Your task to perform on an android device: Is it going to rain tomorrow? Image 0: 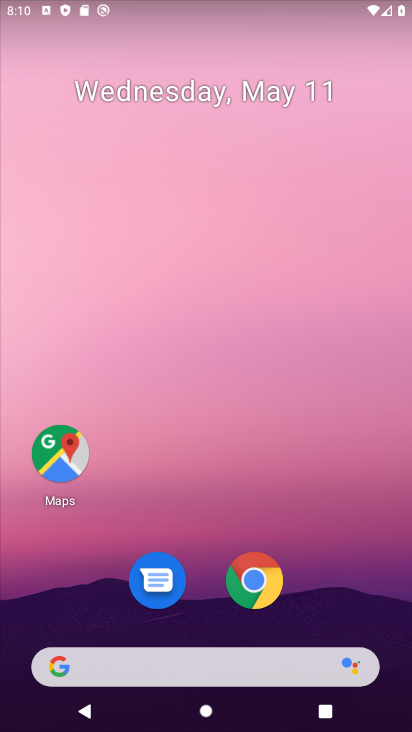
Step 0: click (108, 664)
Your task to perform on an android device: Is it going to rain tomorrow? Image 1: 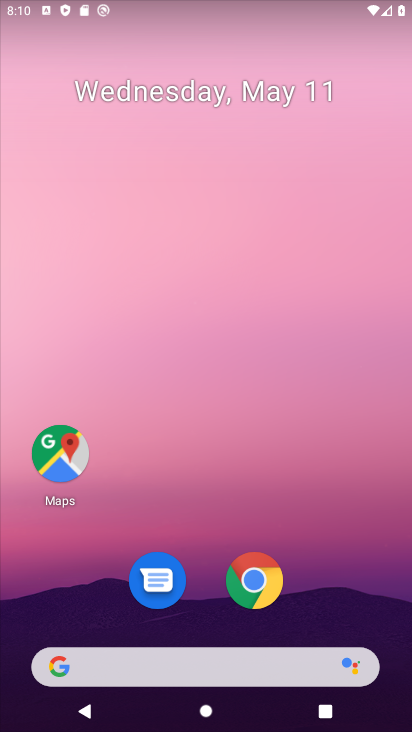
Step 1: type "Is it going to rain tomorrow?"
Your task to perform on an android device: Is it going to rain tomorrow? Image 2: 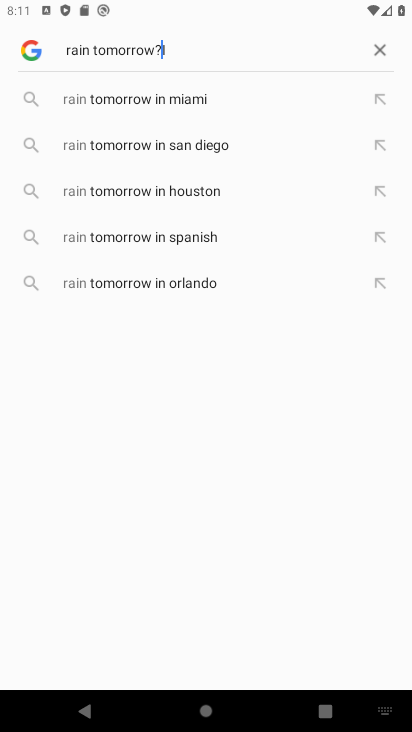
Step 2: drag from (193, 49) to (114, 46)
Your task to perform on an android device: Is it going to rain tomorrow? Image 3: 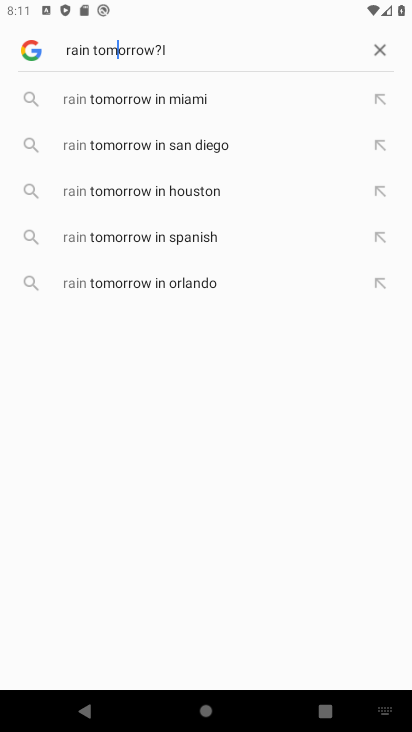
Step 3: type "Is it going to rain tomorrow?"
Your task to perform on an android device: Is it going to rain tomorrow? Image 4: 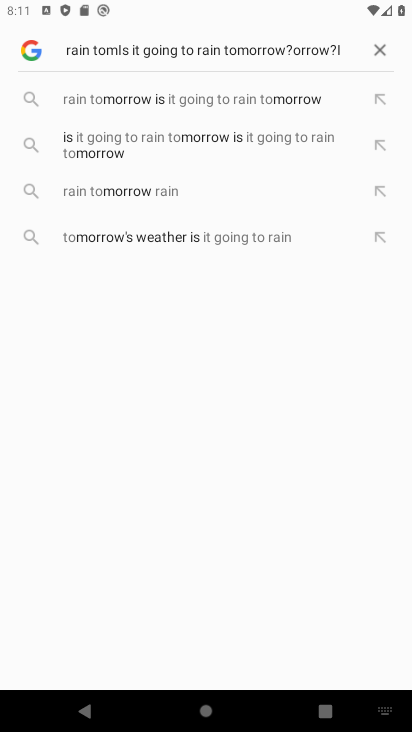
Step 4: click (379, 48)
Your task to perform on an android device: Is it going to rain tomorrow? Image 5: 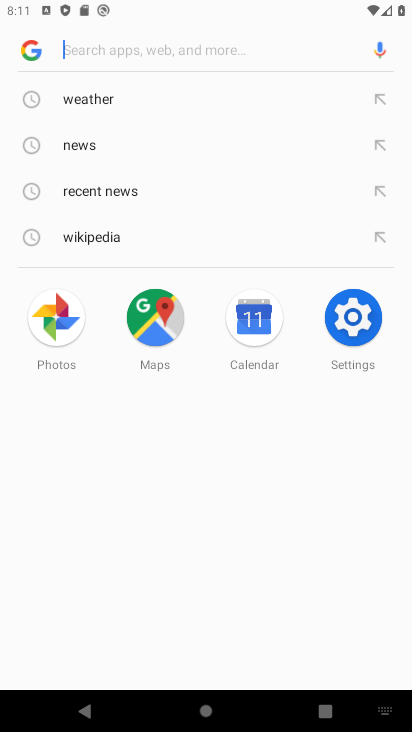
Step 5: type "Is it going to rain tomorrow?"
Your task to perform on an android device: Is it going to rain tomorrow? Image 6: 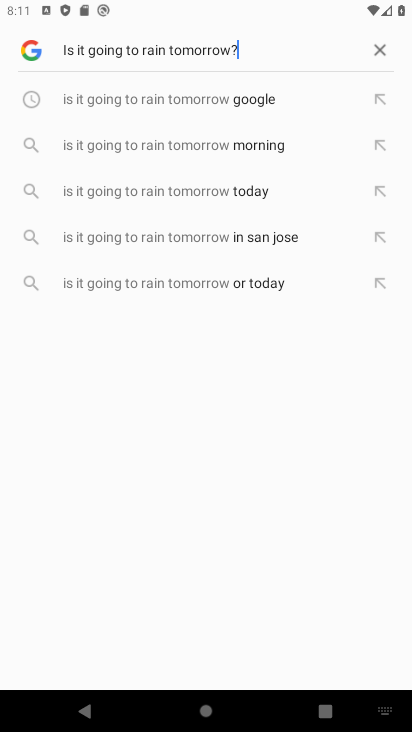
Step 6: click (289, 107)
Your task to perform on an android device: Is it going to rain tomorrow? Image 7: 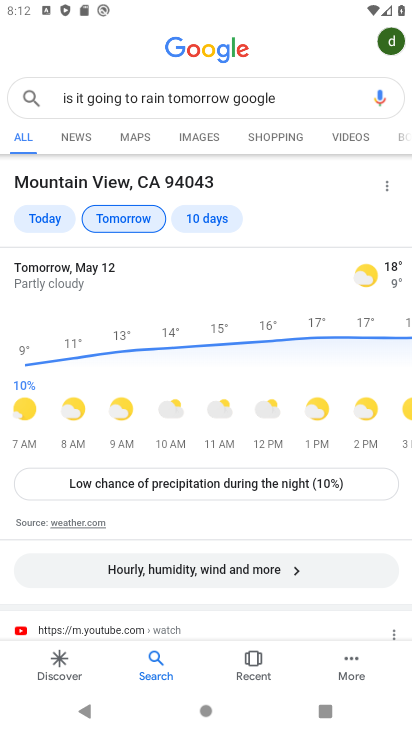
Step 7: task complete